Your task to perform on an android device: turn on priority inbox in the gmail app Image 0: 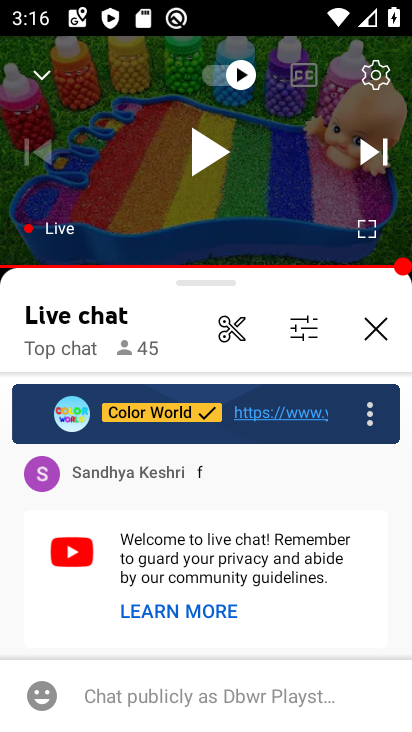
Step 0: press home button
Your task to perform on an android device: turn on priority inbox in the gmail app Image 1: 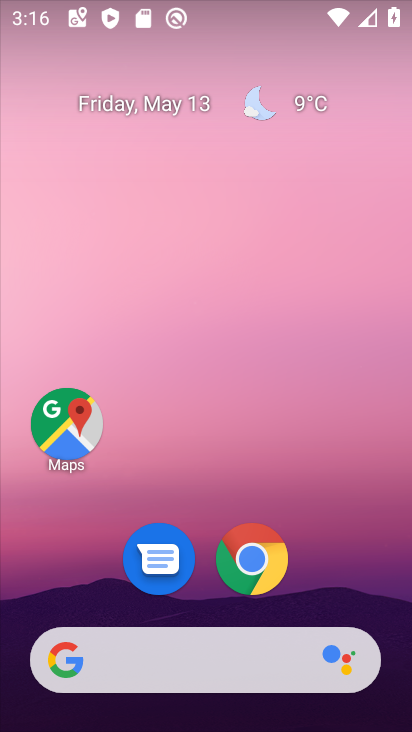
Step 1: drag from (380, 630) to (268, 129)
Your task to perform on an android device: turn on priority inbox in the gmail app Image 2: 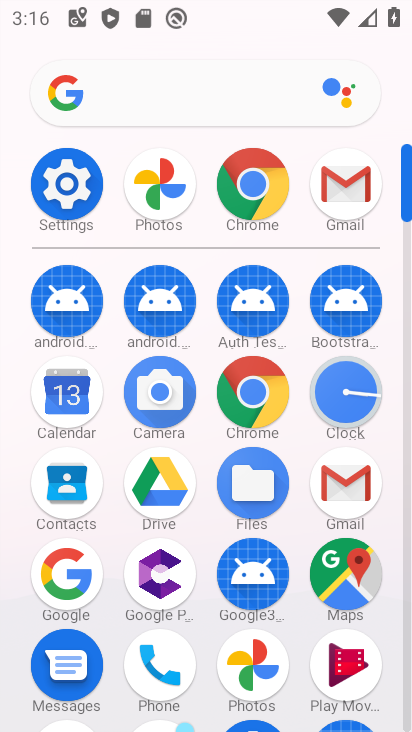
Step 2: click (404, 712)
Your task to perform on an android device: turn on priority inbox in the gmail app Image 3: 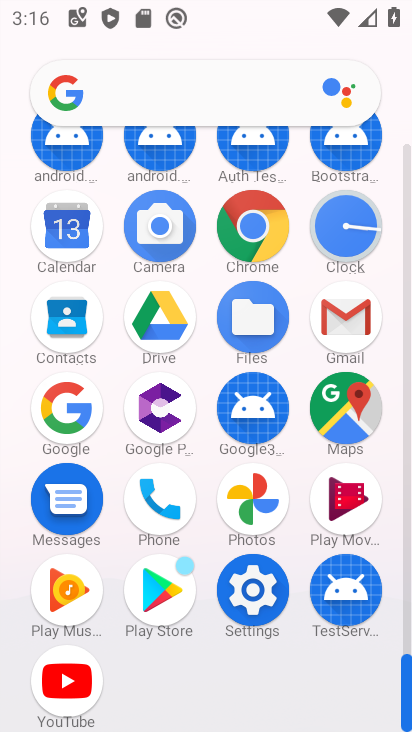
Step 3: click (346, 313)
Your task to perform on an android device: turn on priority inbox in the gmail app Image 4: 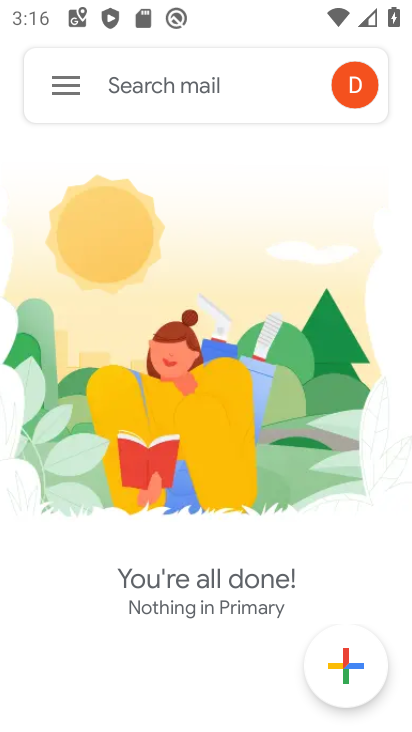
Step 4: click (63, 79)
Your task to perform on an android device: turn on priority inbox in the gmail app Image 5: 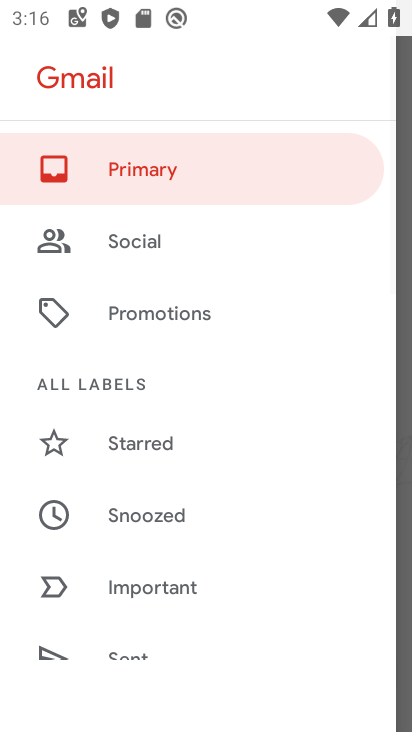
Step 5: drag from (220, 566) to (248, 202)
Your task to perform on an android device: turn on priority inbox in the gmail app Image 6: 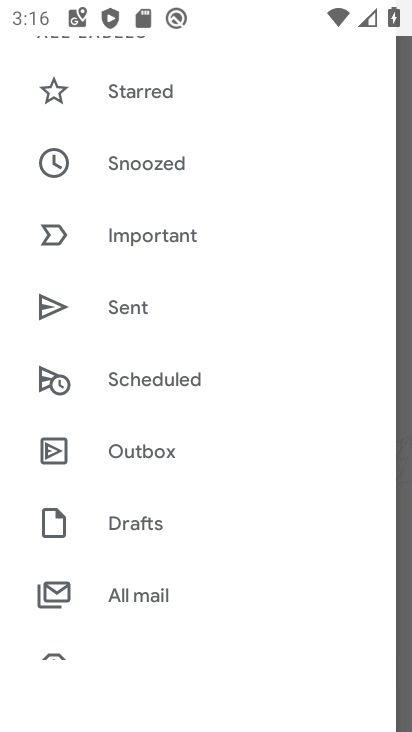
Step 6: drag from (227, 568) to (215, 231)
Your task to perform on an android device: turn on priority inbox in the gmail app Image 7: 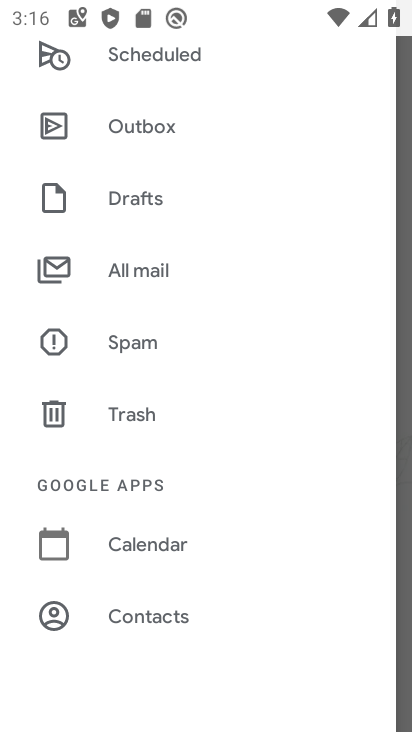
Step 7: drag from (210, 601) to (194, 245)
Your task to perform on an android device: turn on priority inbox in the gmail app Image 8: 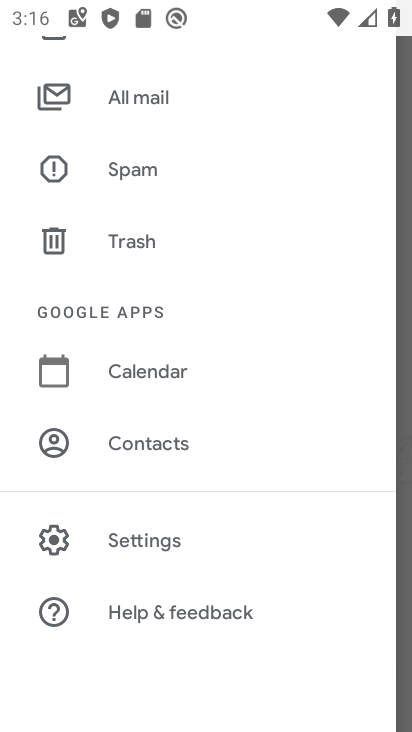
Step 8: click (151, 546)
Your task to perform on an android device: turn on priority inbox in the gmail app Image 9: 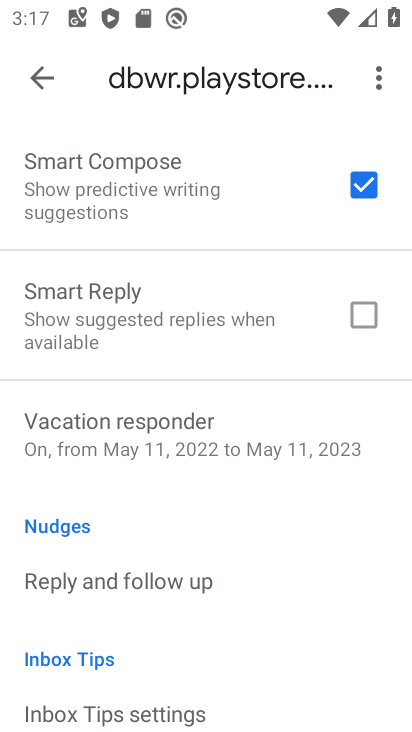
Step 9: drag from (280, 253) to (274, 552)
Your task to perform on an android device: turn on priority inbox in the gmail app Image 10: 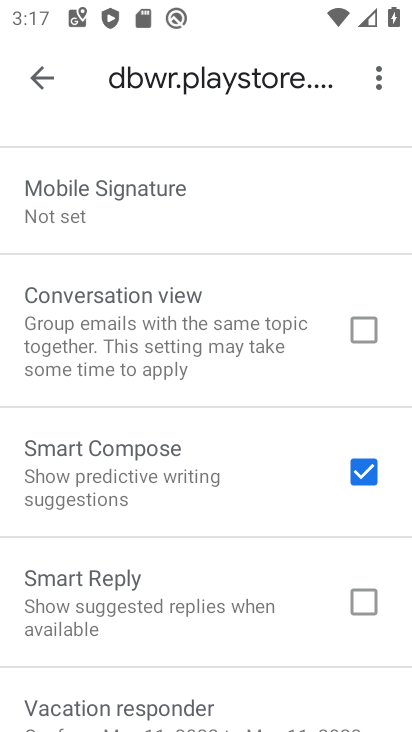
Step 10: drag from (273, 156) to (231, 436)
Your task to perform on an android device: turn on priority inbox in the gmail app Image 11: 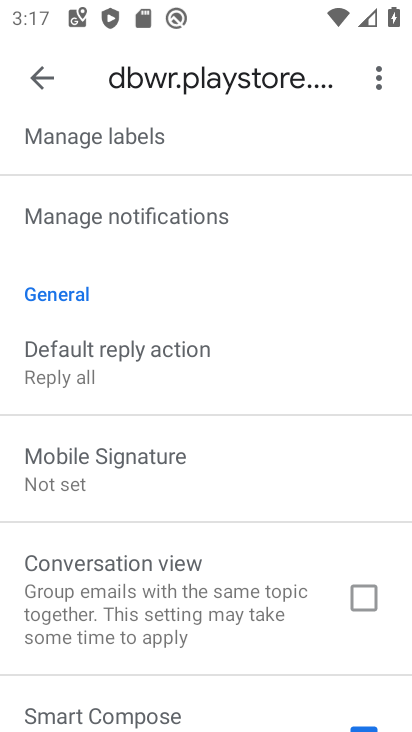
Step 11: drag from (285, 276) to (216, 584)
Your task to perform on an android device: turn on priority inbox in the gmail app Image 12: 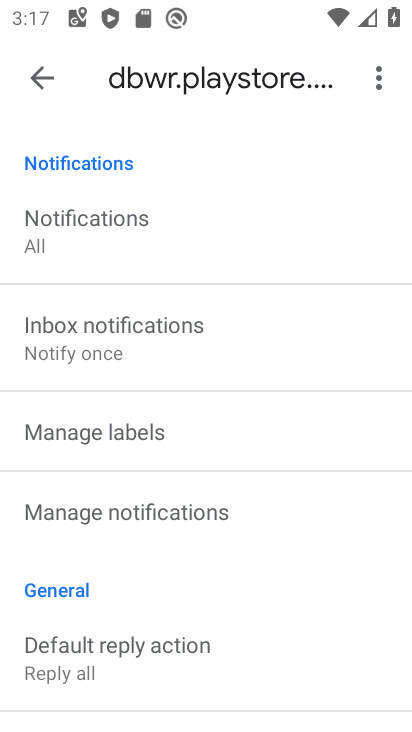
Step 12: drag from (239, 296) to (229, 570)
Your task to perform on an android device: turn on priority inbox in the gmail app Image 13: 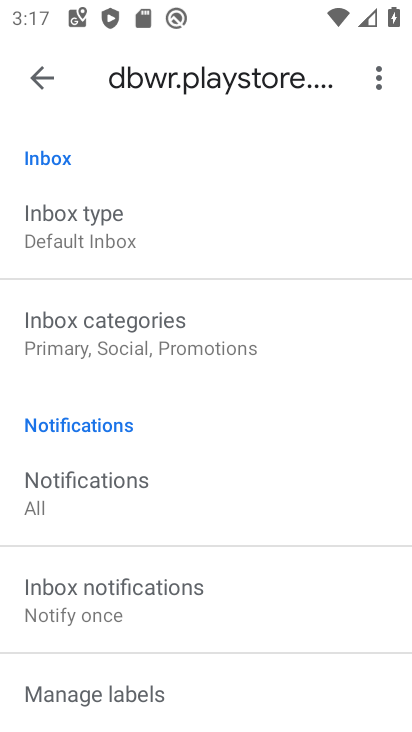
Step 13: click (63, 221)
Your task to perform on an android device: turn on priority inbox in the gmail app Image 14: 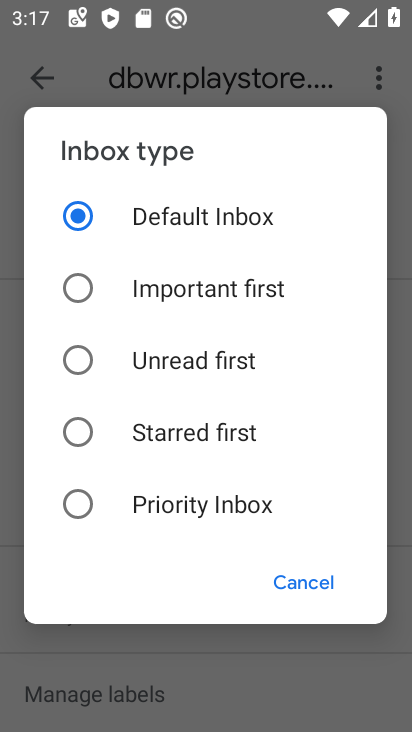
Step 14: click (80, 500)
Your task to perform on an android device: turn on priority inbox in the gmail app Image 15: 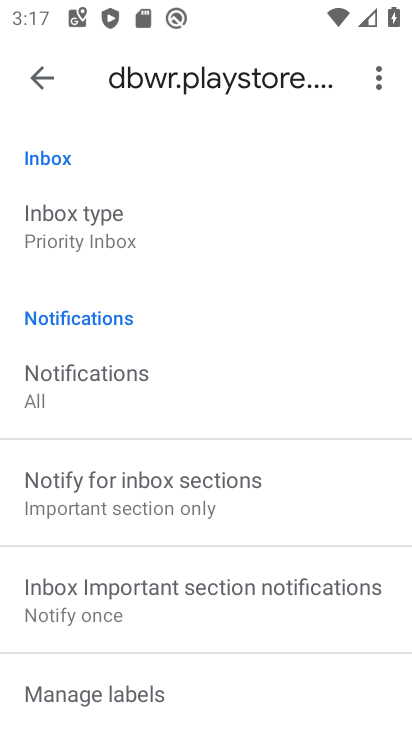
Step 15: task complete